Your task to perform on an android device: turn on showing notifications on the lock screen Image 0: 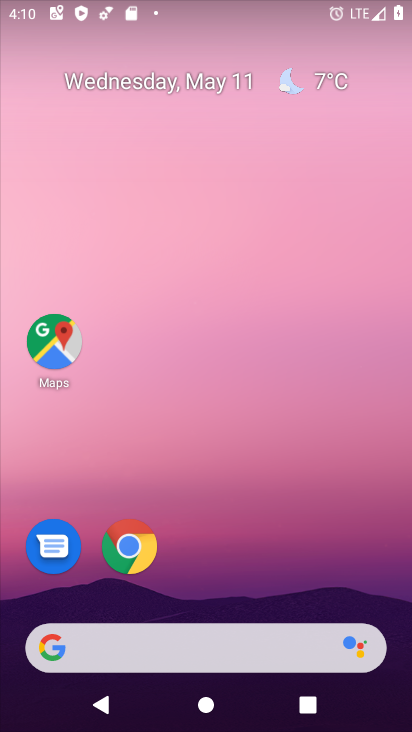
Step 0: drag from (345, 613) to (315, 3)
Your task to perform on an android device: turn on showing notifications on the lock screen Image 1: 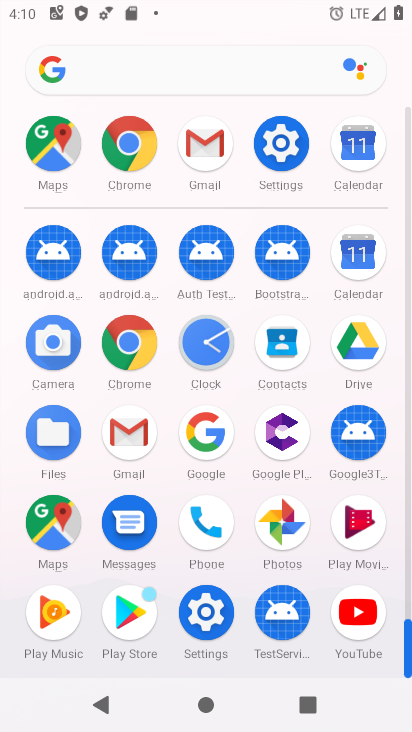
Step 1: click (290, 153)
Your task to perform on an android device: turn on showing notifications on the lock screen Image 2: 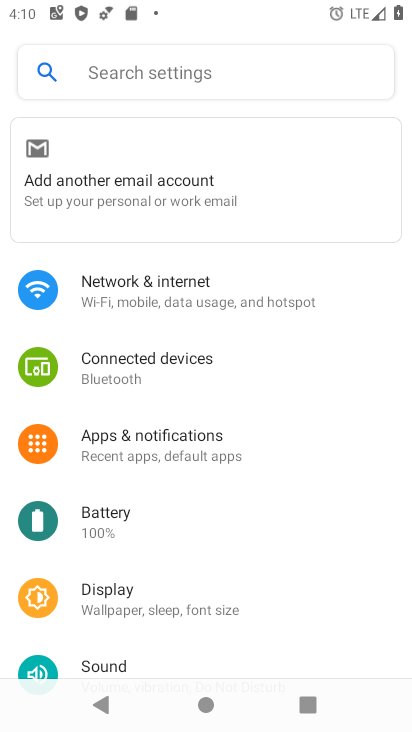
Step 2: click (223, 452)
Your task to perform on an android device: turn on showing notifications on the lock screen Image 3: 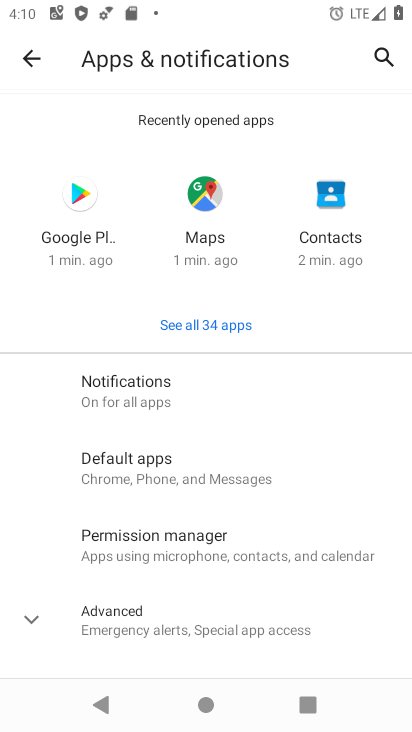
Step 3: click (232, 397)
Your task to perform on an android device: turn on showing notifications on the lock screen Image 4: 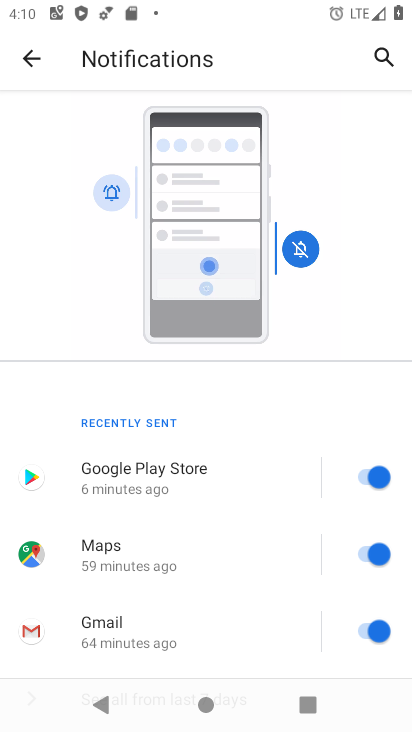
Step 4: drag from (262, 617) to (323, 92)
Your task to perform on an android device: turn on showing notifications on the lock screen Image 5: 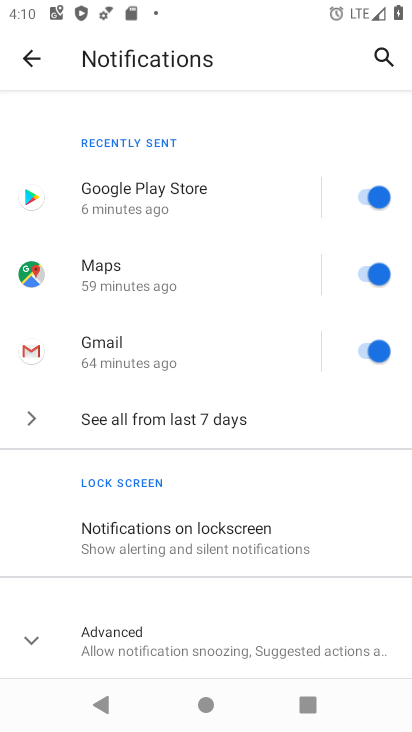
Step 5: click (254, 538)
Your task to perform on an android device: turn on showing notifications on the lock screen Image 6: 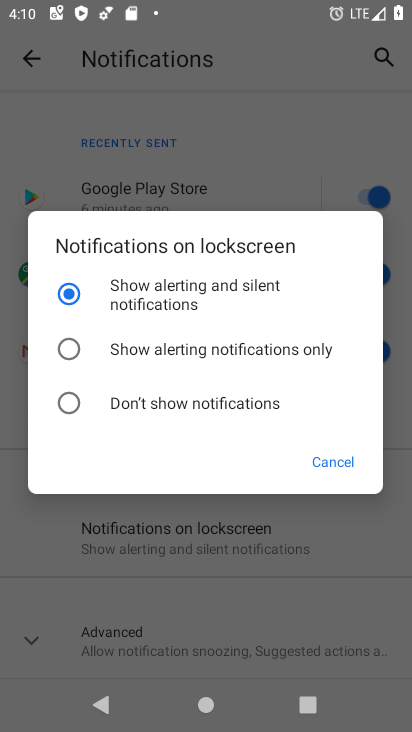
Step 6: task complete